Your task to perform on an android device: Check the weather Image 0: 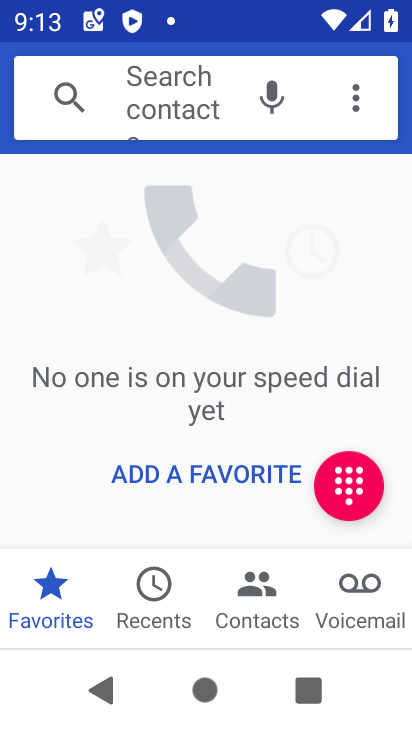
Step 0: press home button
Your task to perform on an android device: Check the weather Image 1: 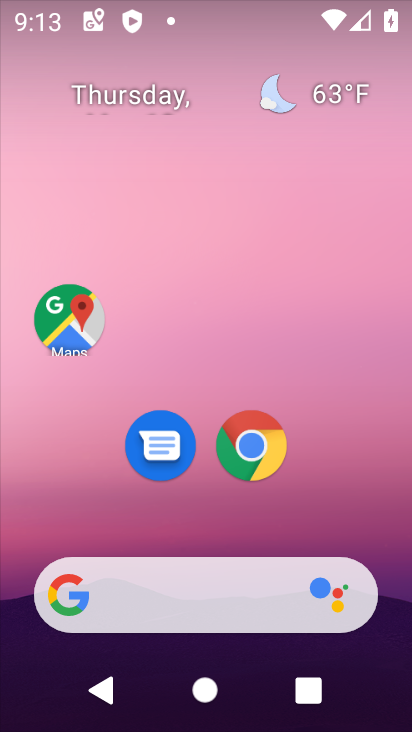
Step 1: click (208, 606)
Your task to perform on an android device: Check the weather Image 2: 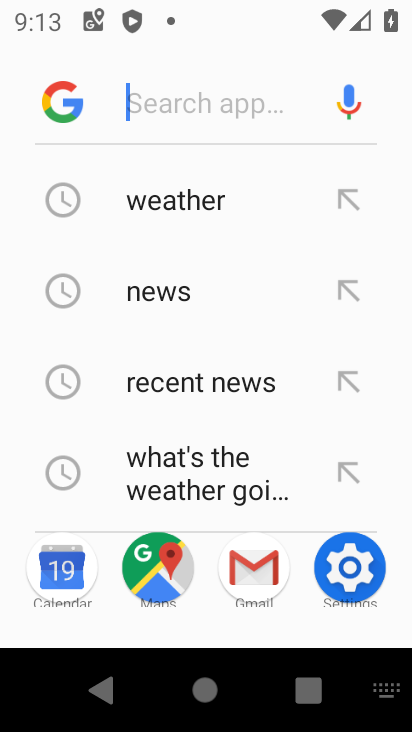
Step 2: click (190, 190)
Your task to perform on an android device: Check the weather Image 3: 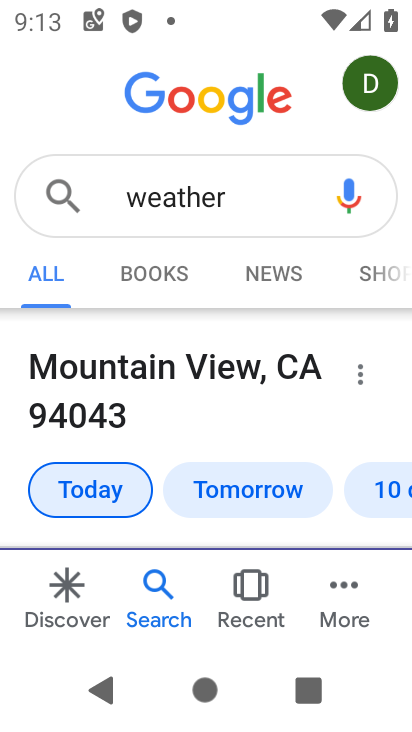
Step 3: task complete